Your task to perform on an android device: open the mobile data screen to see how much data has been used Image 0: 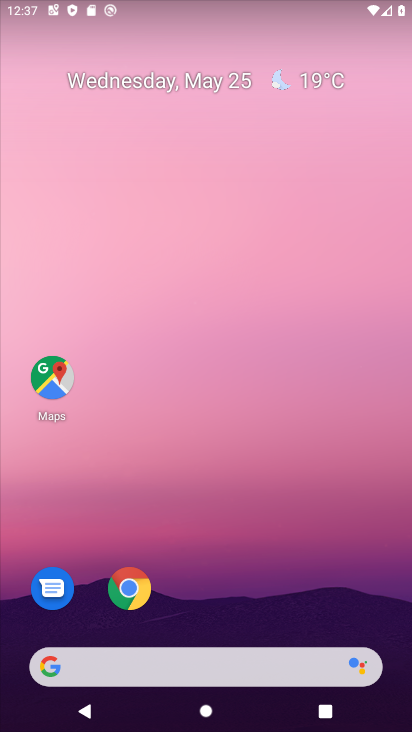
Step 0: drag from (180, 597) to (228, 159)
Your task to perform on an android device: open the mobile data screen to see how much data has been used Image 1: 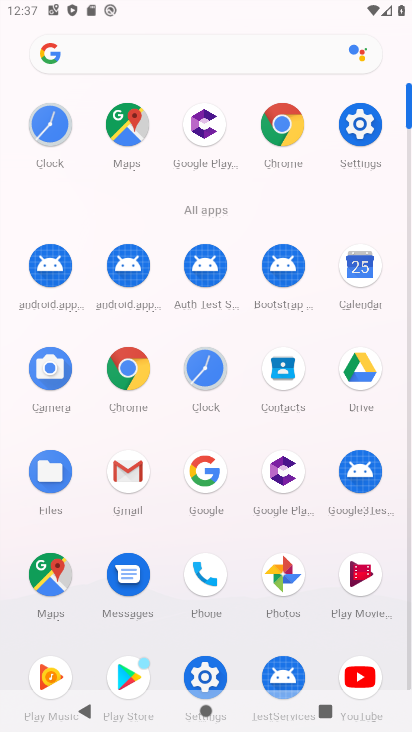
Step 1: click (212, 670)
Your task to perform on an android device: open the mobile data screen to see how much data has been used Image 2: 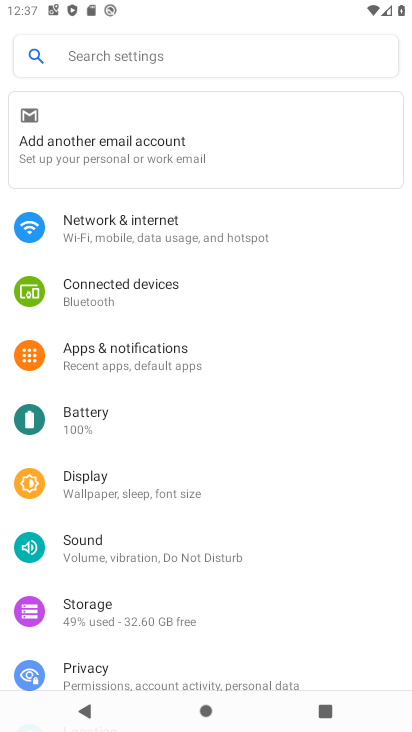
Step 2: click (210, 239)
Your task to perform on an android device: open the mobile data screen to see how much data has been used Image 3: 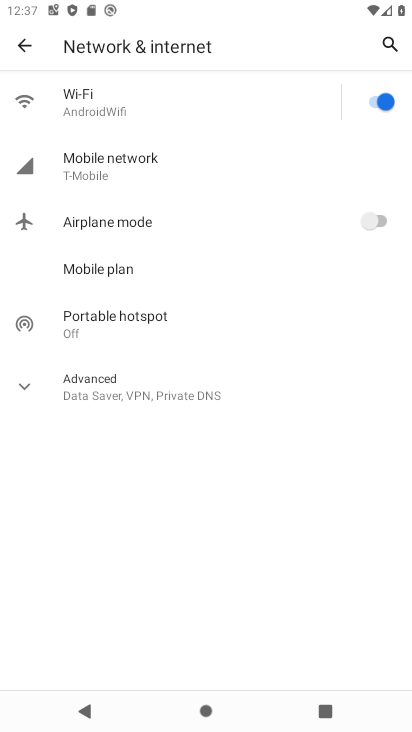
Step 3: click (128, 176)
Your task to perform on an android device: open the mobile data screen to see how much data has been used Image 4: 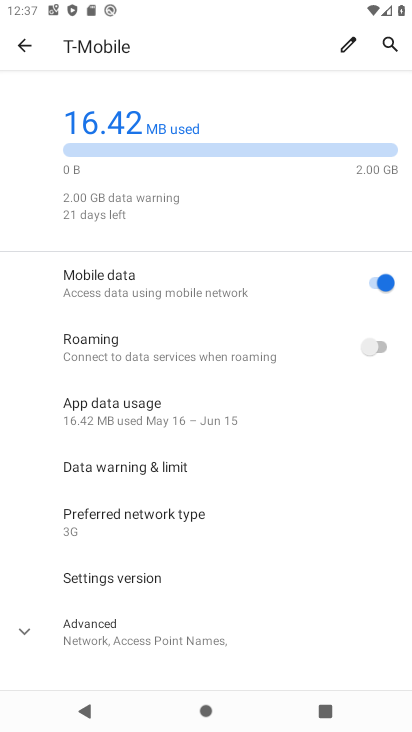
Step 4: task complete